Your task to perform on an android device: Open internet settings Image 0: 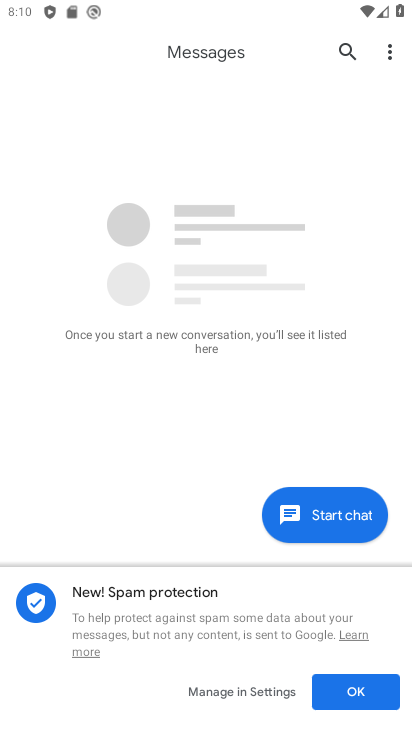
Step 0: press home button
Your task to perform on an android device: Open internet settings Image 1: 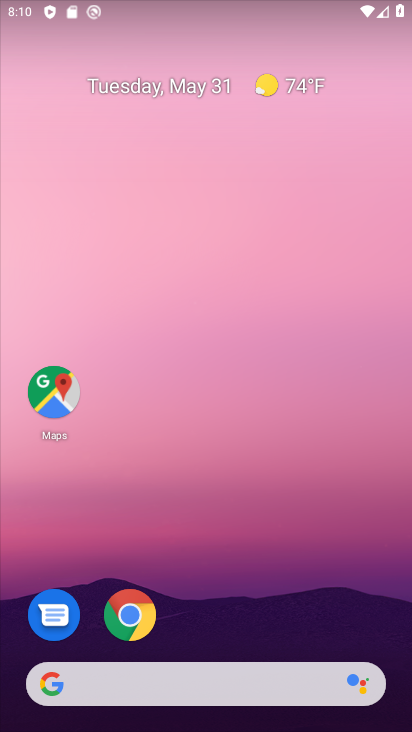
Step 1: drag from (214, 631) to (239, 180)
Your task to perform on an android device: Open internet settings Image 2: 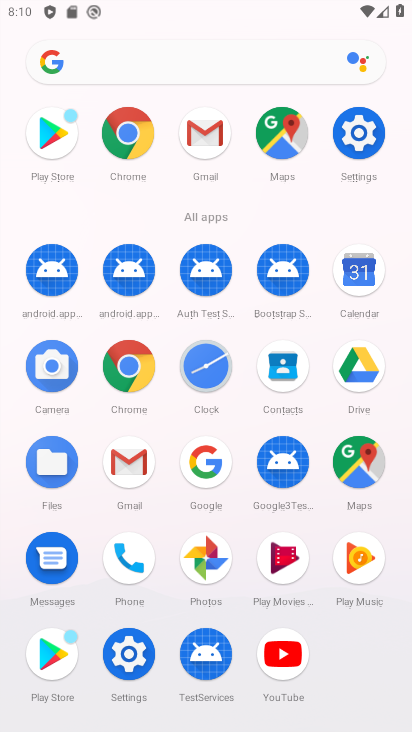
Step 2: click (367, 133)
Your task to perform on an android device: Open internet settings Image 3: 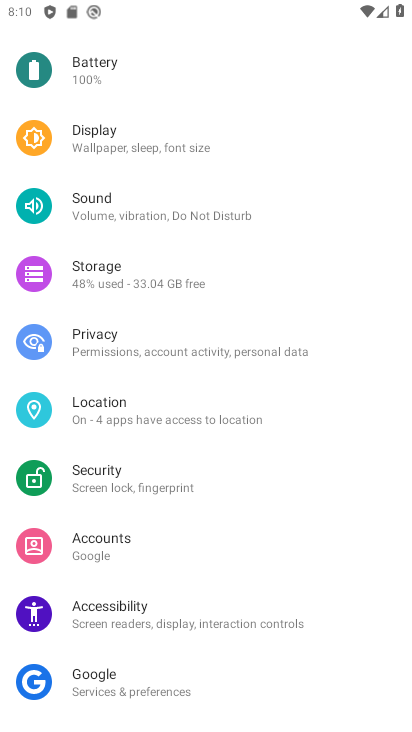
Step 3: drag from (194, 154) to (239, 533)
Your task to perform on an android device: Open internet settings Image 4: 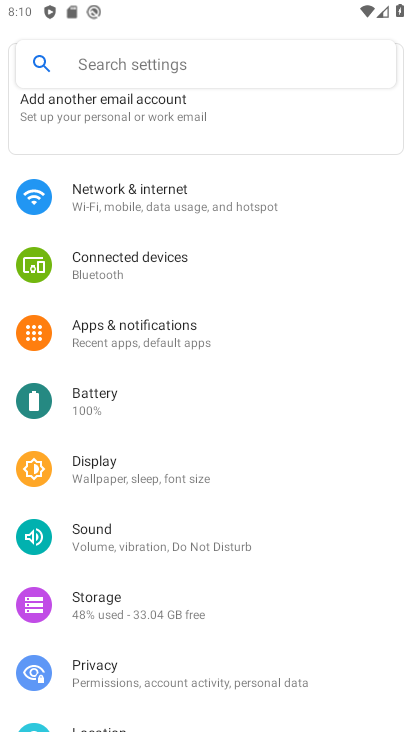
Step 4: click (170, 187)
Your task to perform on an android device: Open internet settings Image 5: 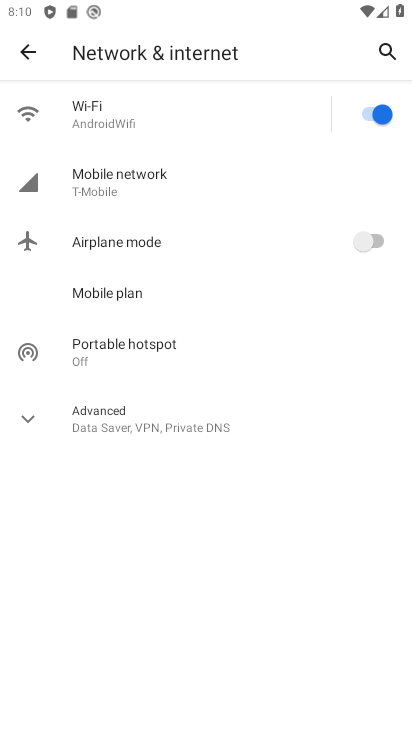
Step 5: click (134, 177)
Your task to perform on an android device: Open internet settings Image 6: 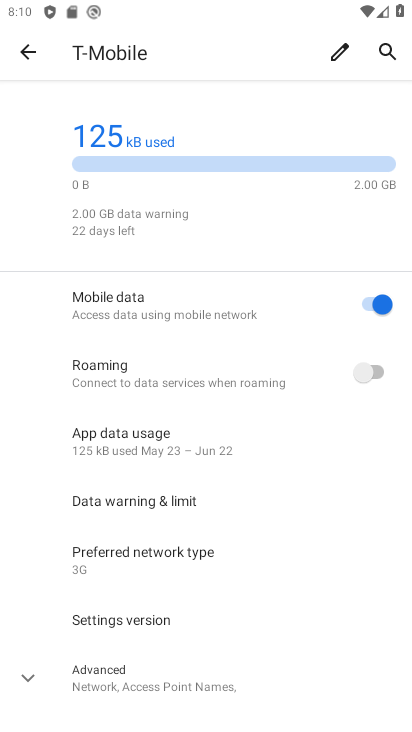
Step 6: task complete